Your task to perform on an android device: Search for pizza restaurants on Maps Image 0: 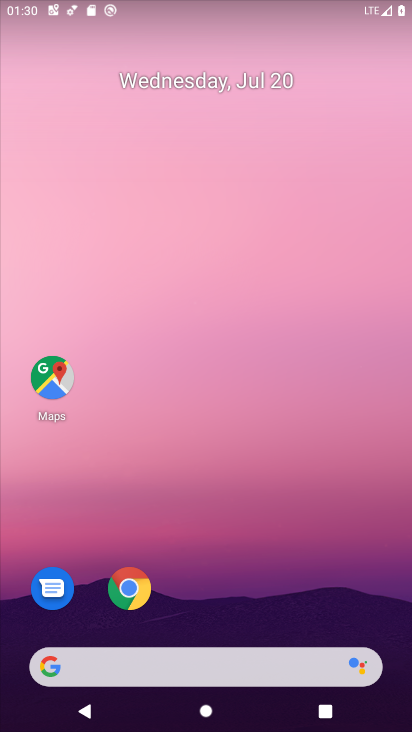
Step 0: drag from (254, 553) to (217, 165)
Your task to perform on an android device: Search for pizza restaurants on Maps Image 1: 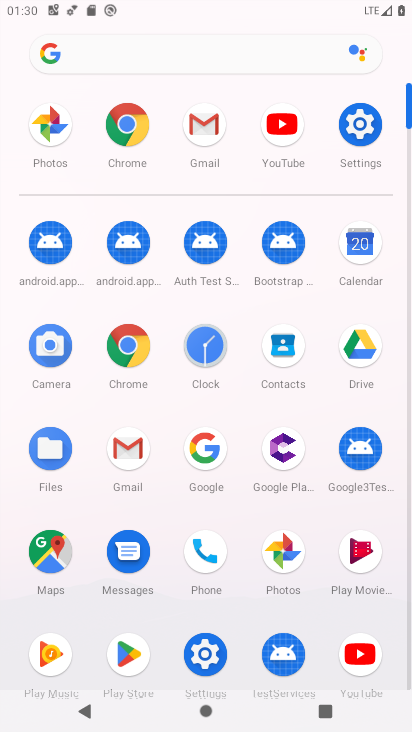
Step 1: click (55, 547)
Your task to perform on an android device: Search for pizza restaurants on Maps Image 2: 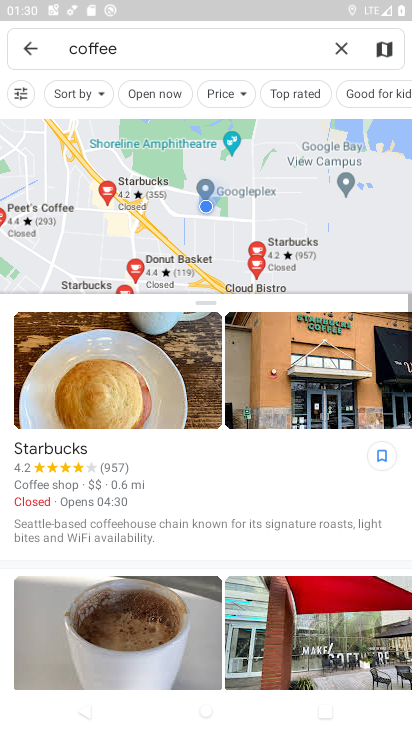
Step 2: click (346, 50)
Your task to perform on an android device: Search for pizza restaurants on Maps Image 3: 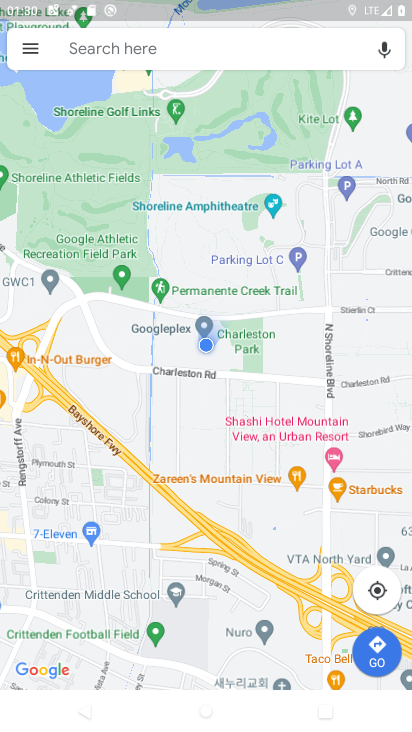
Step 3: click (213, 34)
Your task to perform on an android device: Search for pizza restaurants on Maps Image 4: 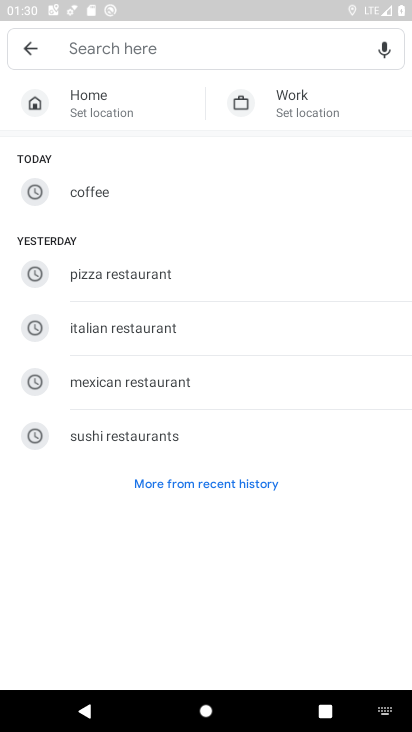
Step 4: type "pizza restaurants "
Your task to perform on an android device: Search for pizza restaurants on Maps Image 5: 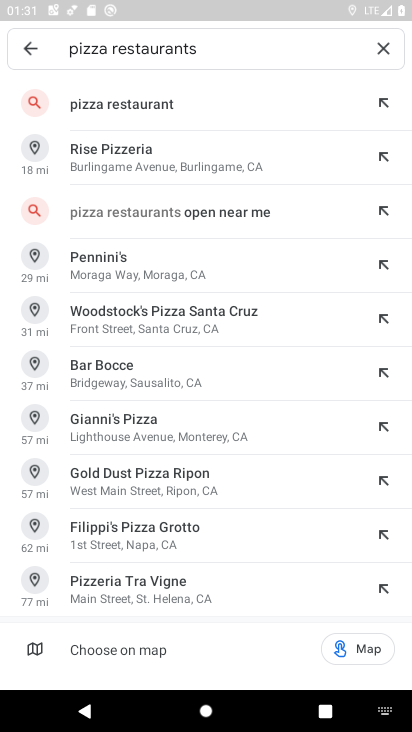
Step 5: click (154, 96)
Your task to perform on an android device: Search for pizza restaurants on Maps Image 6: 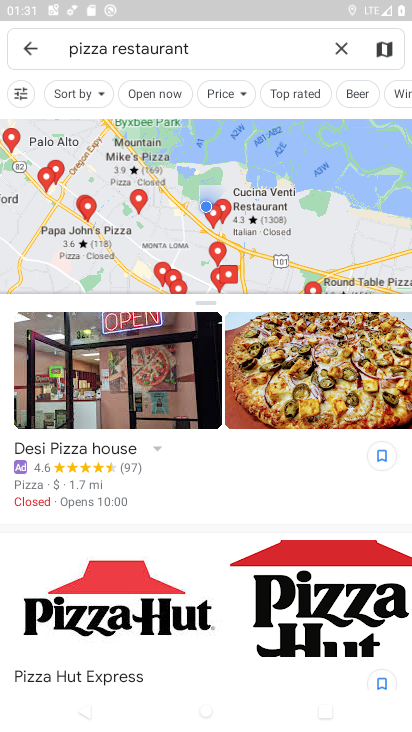
Step 6: task complete